Your task to perform on an android device: turn off location Image 0: 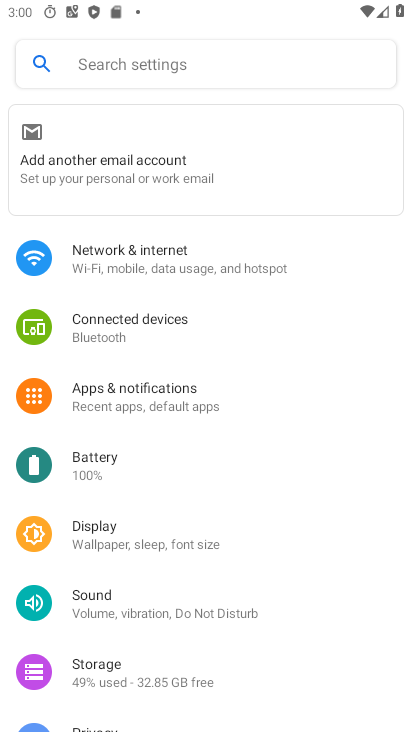
Step 0: drag from (170, 545) to (265, 32)
Your task to perform on an android device: turn off location Image 1: 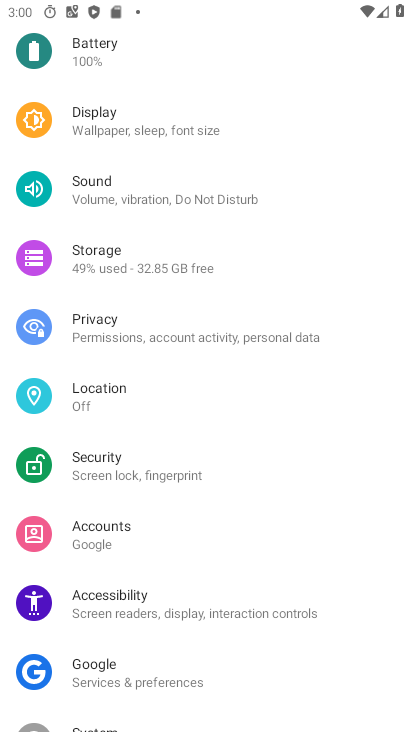
Step 1: click (159, 398)
Your task to perform on an android device: turn off location Image 2: 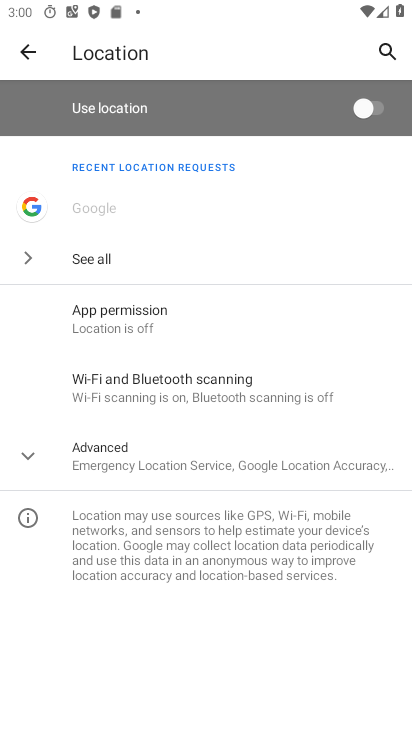
Step 2: task complete